Your task to perform on an android device: delete browsing data in the chrome app Image 0: 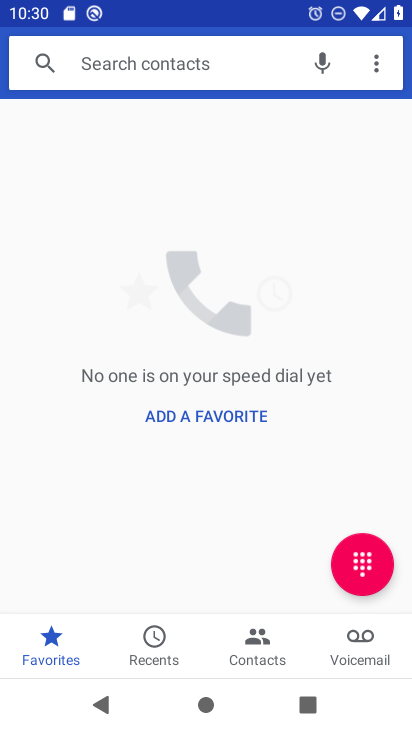
Step 0: press home button
Your task to perform on an android device: delete browsing data in the chrome app Image 1: 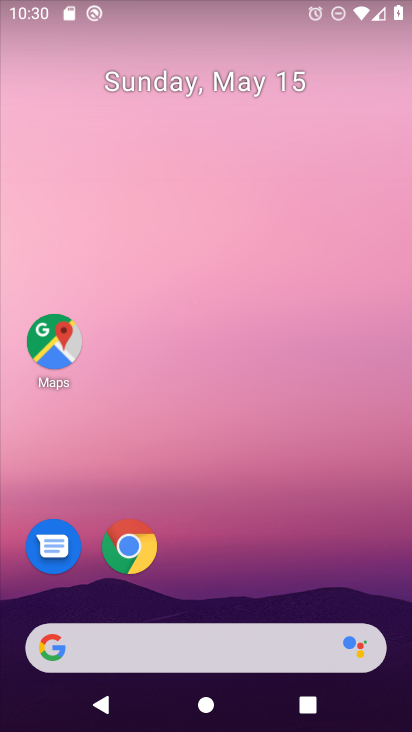
Step 1: click (134, 553)
Your task to perform on an android device: delete browsing data in the chrome app Image 2: 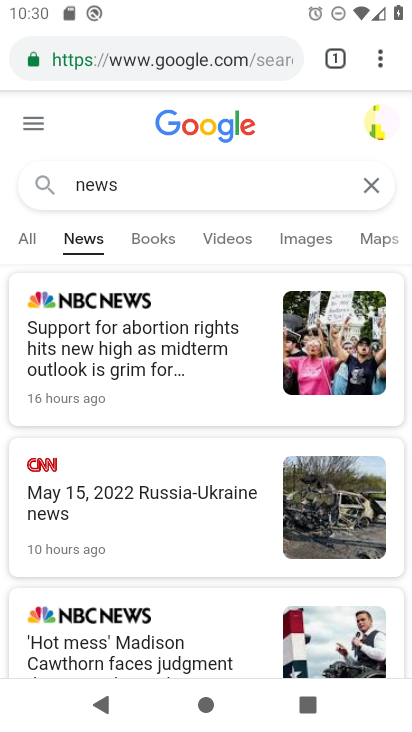
Step 2: drag from (380, 61) to (205, 244)
Your task to perform on an android device: delete browsing data in the chrome app Image 3: 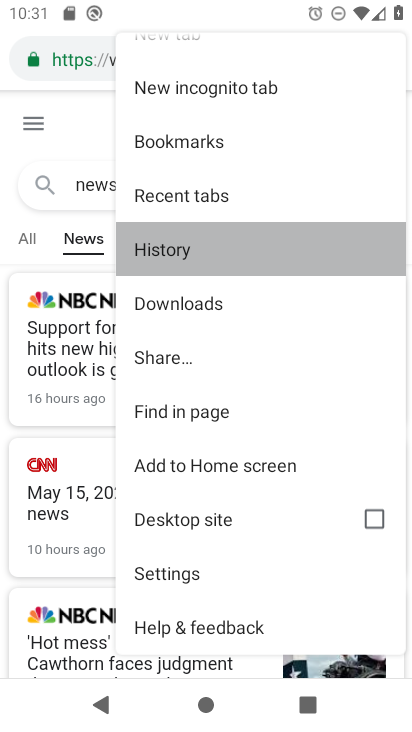
Step 3: click (192, 248)
Your task to perform on an android device: delete browsing data in the chrome app Image 4: 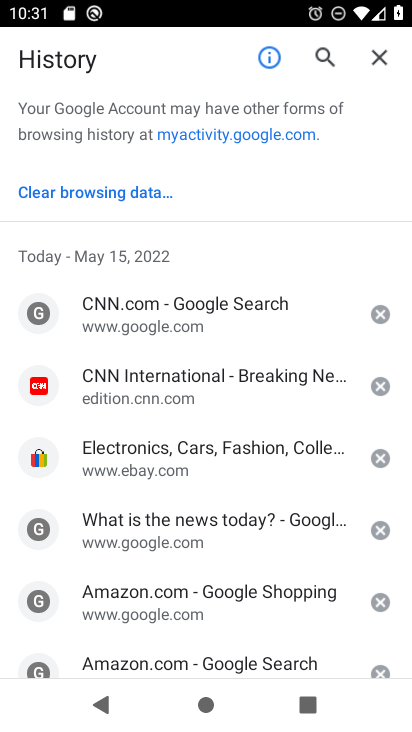
Step 4: click (145, 194)
Your task to perform on an android device: delete browsing data in the chrome app Image 5: 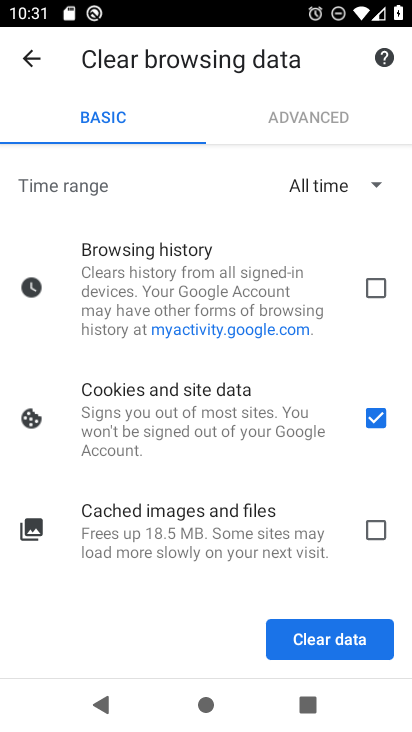
Step 5: click (370, 287)
Your task to perform on an android device: delete browsing data in the chrome app Image 6: 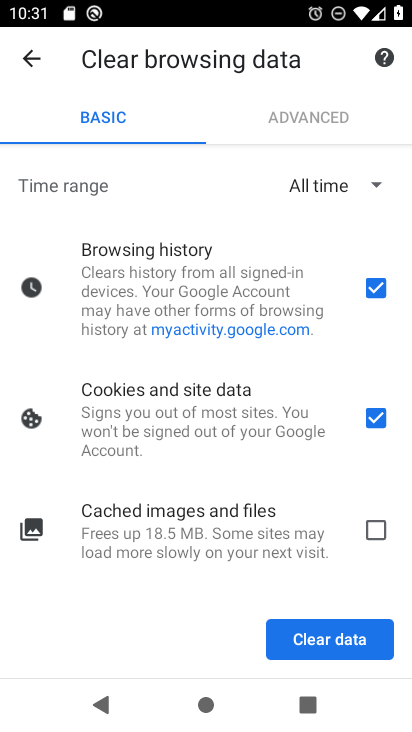
Step 6: click (359, 638)
Your task to perform on an android device: delete browsing data in the chrome app Image 7: 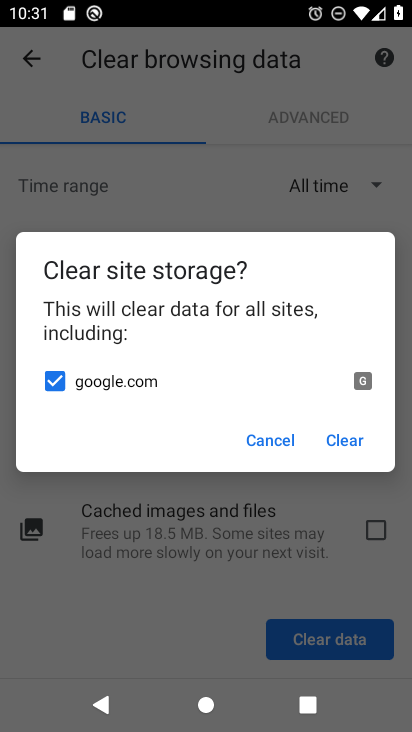
Step 7: click (358, 437)
Your task to perform on an android device: delete browsing data in the chrome app Image 8: 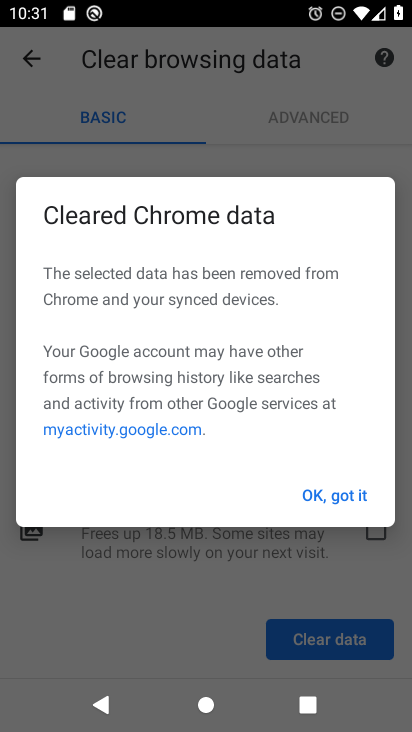
Step 8: click (349, 494)
Your task to perform on an android device: delete browsing data in the chrome app Image 9: 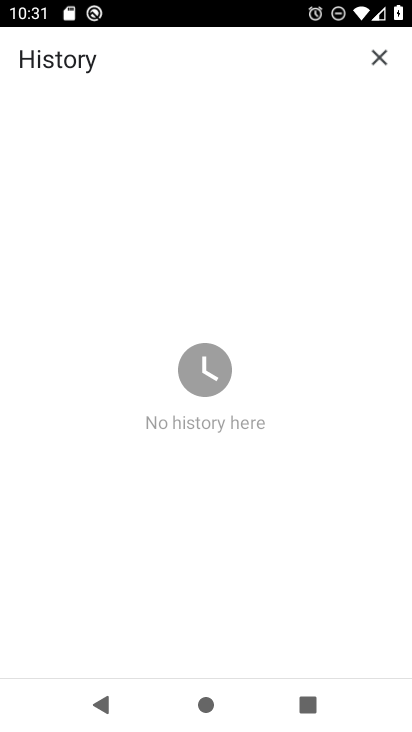
Step 9: task complete